Your task to perform on an android device: toggle sleep mode Image 0: 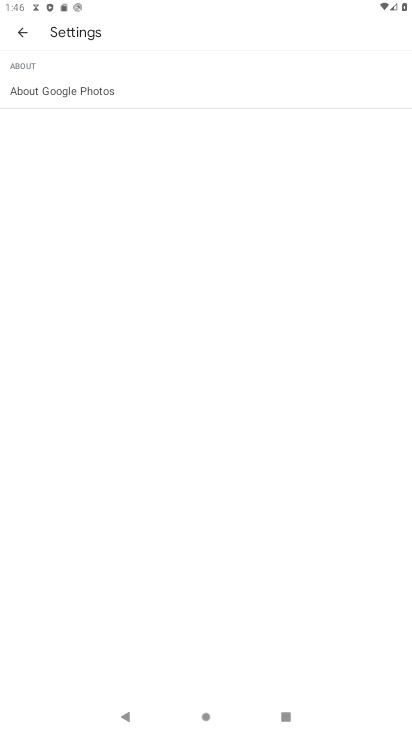
Step 0: press home button
Your task to perform on an android device: toggle sleep mode Image 1: 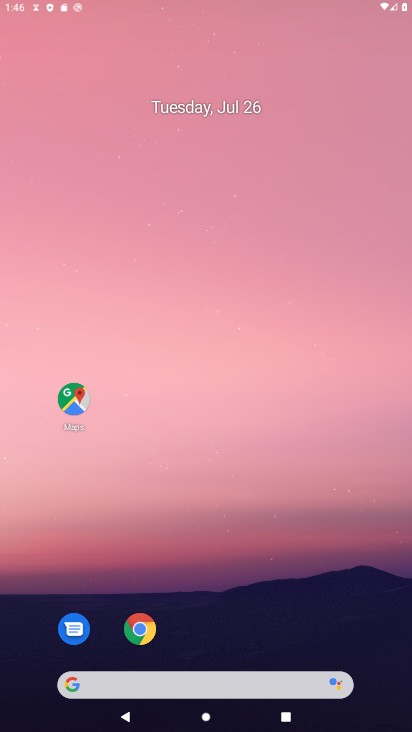
Step 1: drag from (295, 692) to (296, 0)
Your task to perform on an android device: toggle sleep mode Image 2: 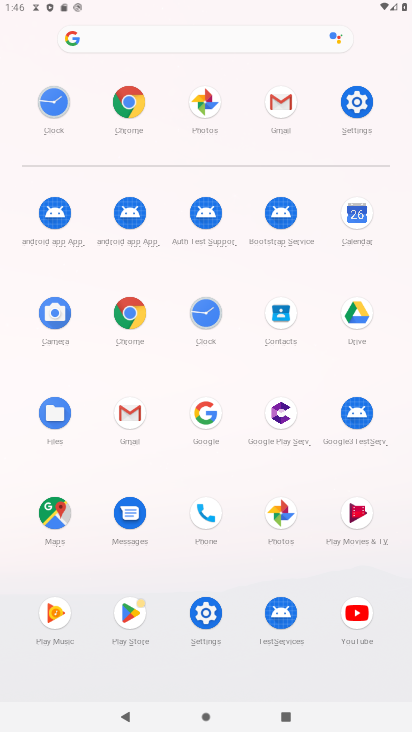
Step 2: click (344, 89)
Your task to perform on an android device: toggle sleep mode Image 3: 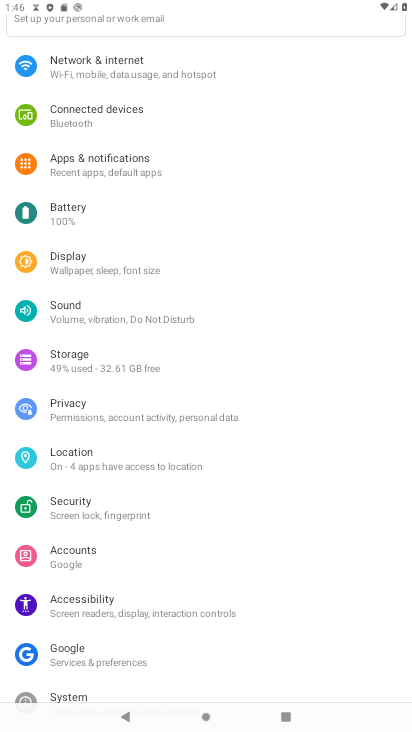
Step 3: click (112, 261)
Your task to perform on an android device: toggle sleep mode Image 4: 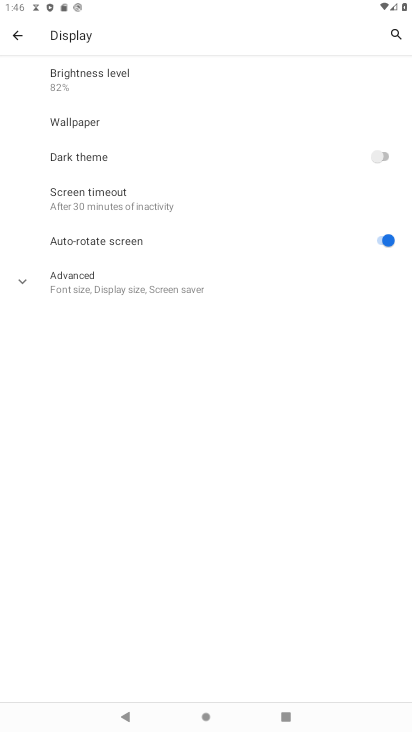
Step 4: task complete